Your task to perform on an android device: Go to privacy settings Image 0: 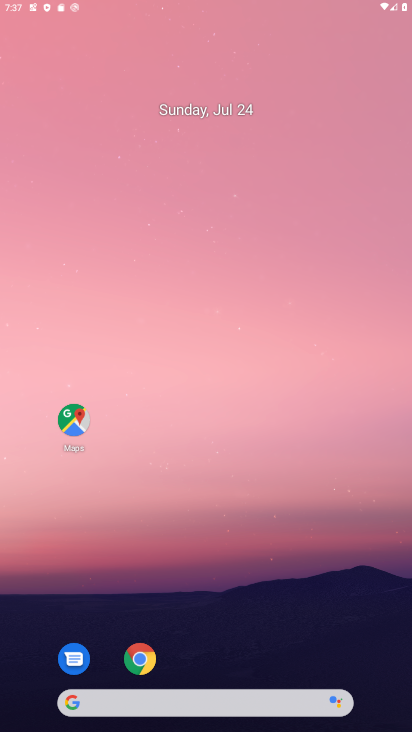
Step 0: press home button
Your task to perform on an android device: Go to privacy settings Image 1: 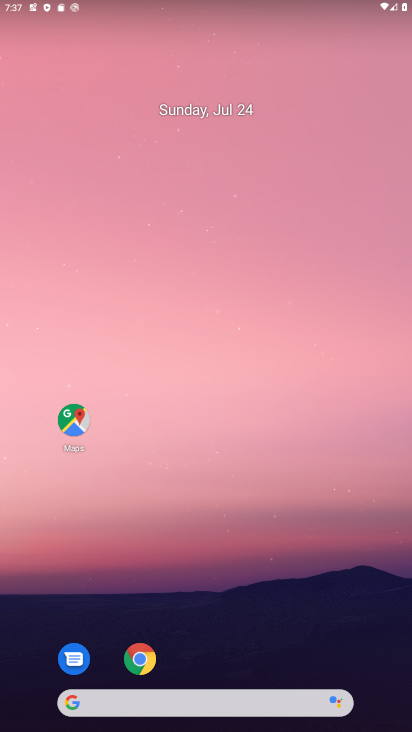
Step 1: drag from (295, 644) to (161, 87)
Your task to perform on an android device: Go to privacy settings Image 2: 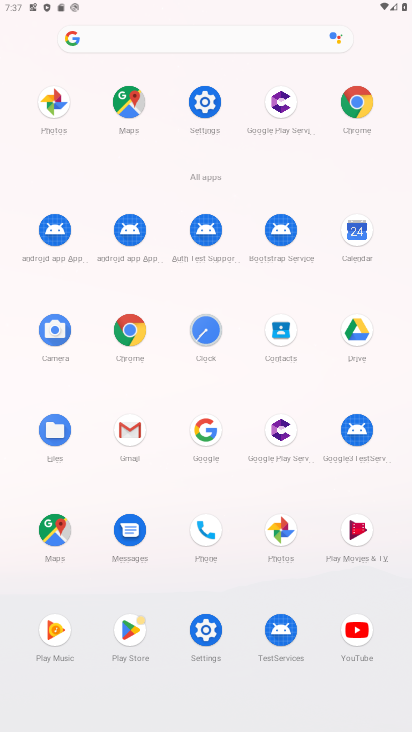
Step 2: click (200, 101)
Your task to perform on an android device: Go to privacy settings Image 3: 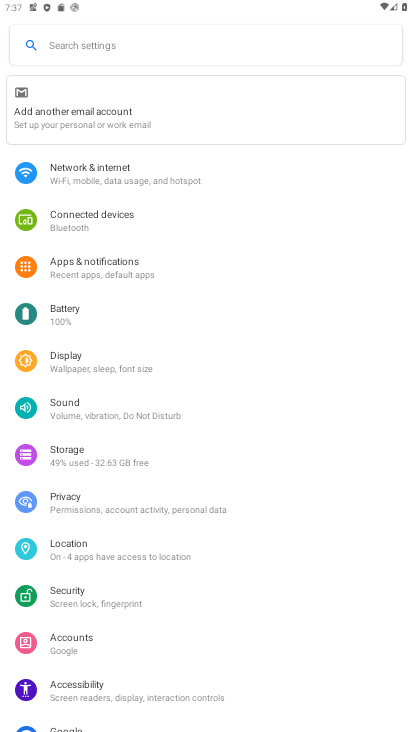
Step 3: drag from (160, 603) to (135, 216)
Your task to perform on an android device: Go to privacy settings Image 4: 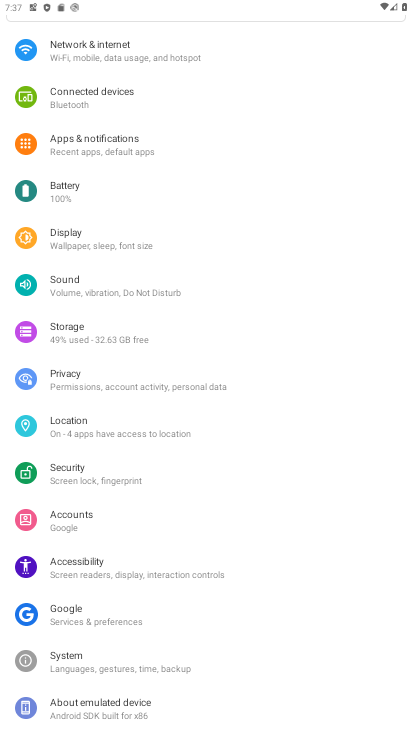
Step 4: click (82, 377)
Your task to perform on an android device: Go to privacy settings Image 5: 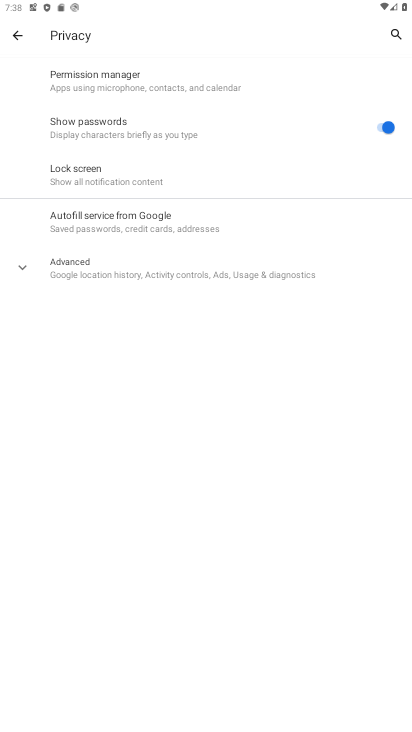
Step 5: task complete